Your task to perform on an android device: Open Amazon Image 0: 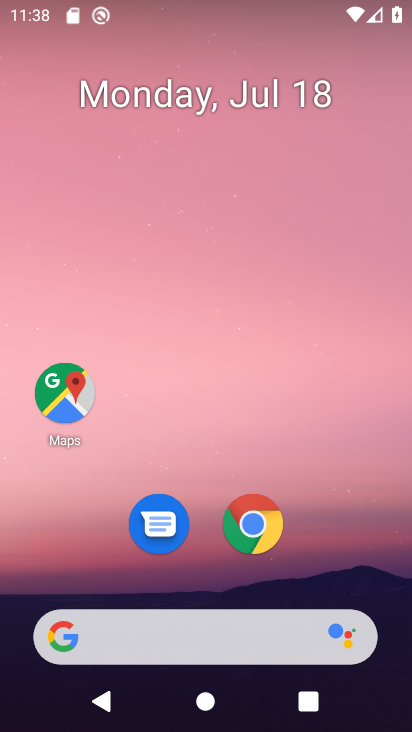
Step 0: drag from (332, 506) to (354, 3)
Your task to perform on an android device: Open Amazon Image 1: 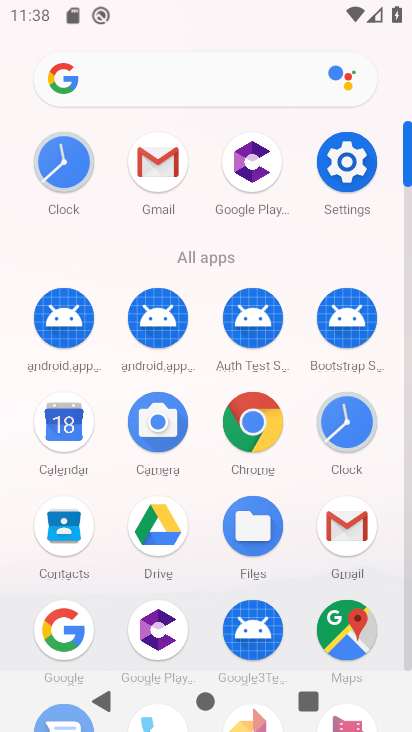
Step 1: click (266, 430)
Your task to perform on an android device: Open Amazon Image 2: 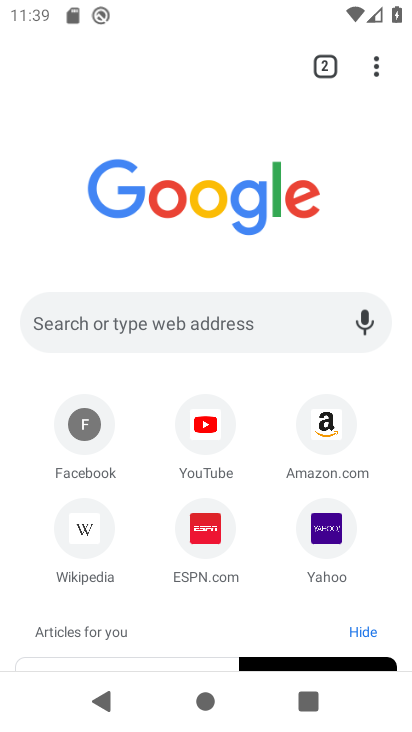
Step 2: click (328, 422)
Your task to perform on an android device: Open Amazon Image 3: 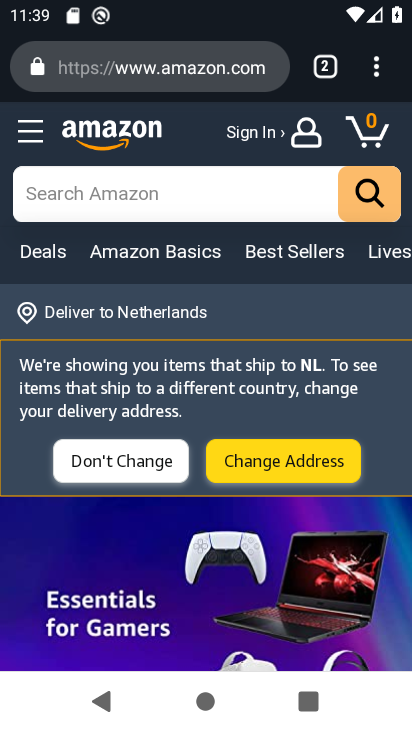
Step 3: task complete